Your task to perform on an android device: Go to ESPN.com Image 0: 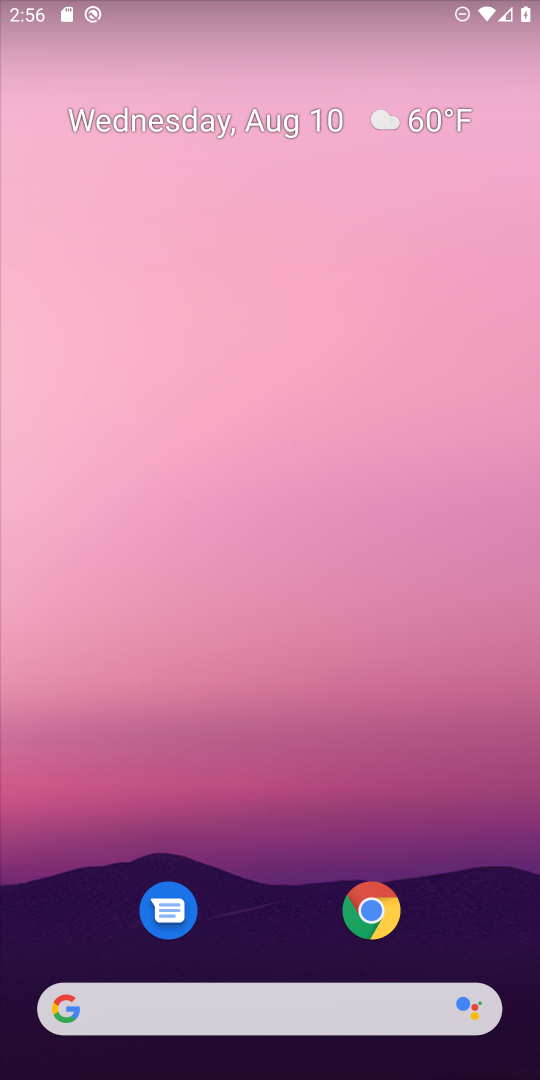
Step 0: click (380, 906)
Your task to perform on an android device: Go to ESPN.com Image 1: 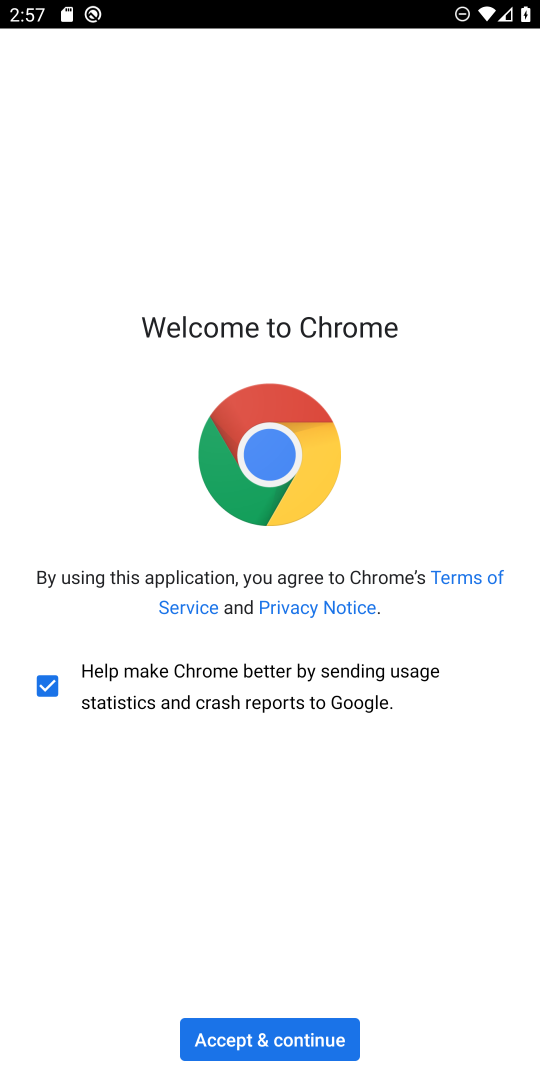
Step 1: click (251, 1038)
Your task to perform on an android device: Go to ESPN.com Image 2: 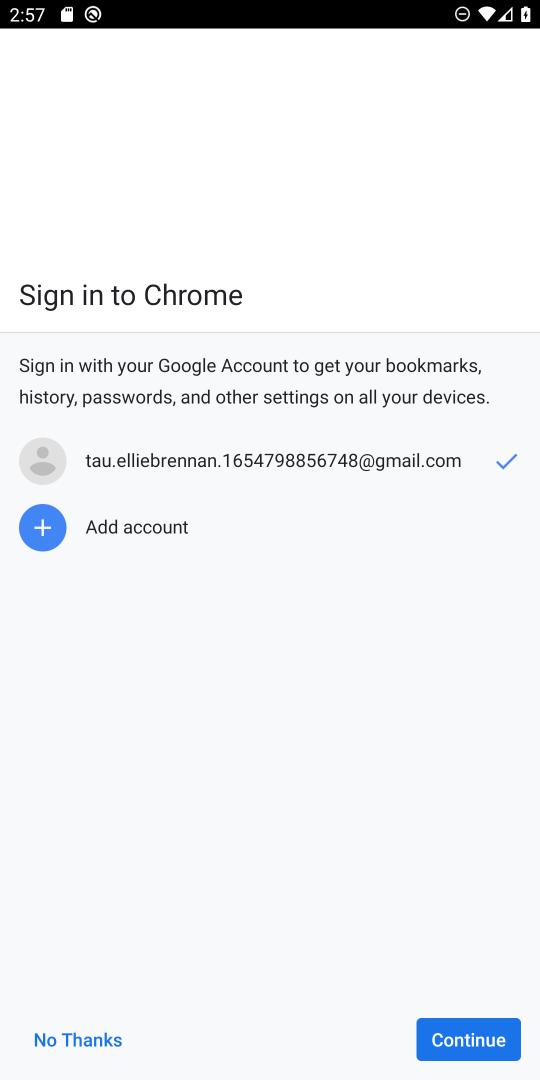
Step 2: click (450, 1019)
Your task to perform on an android device: Go to ESPN.com Image 3: 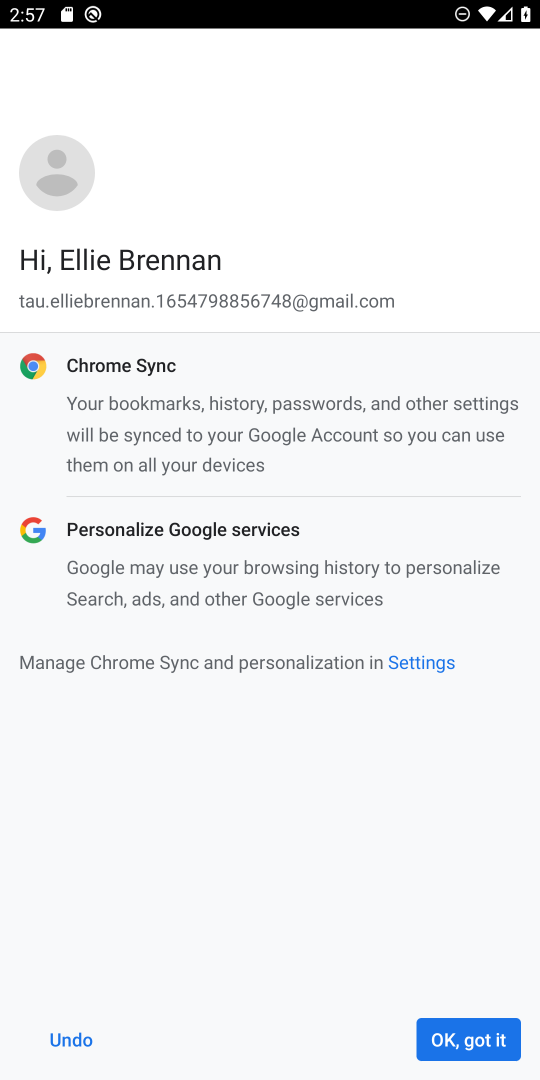
Step 3: click (450, 1019)
Your task to perform on an android device: Go to ESPN.com Image 4: 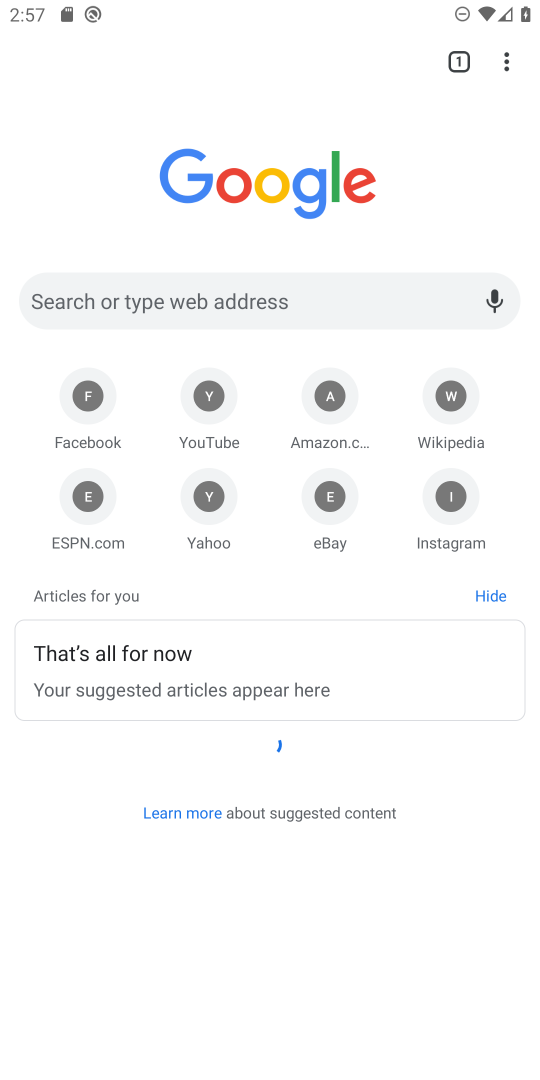
Step 4: click (85, 493)
Your task to perform on an android device: Go to ESPN.com Image 5: 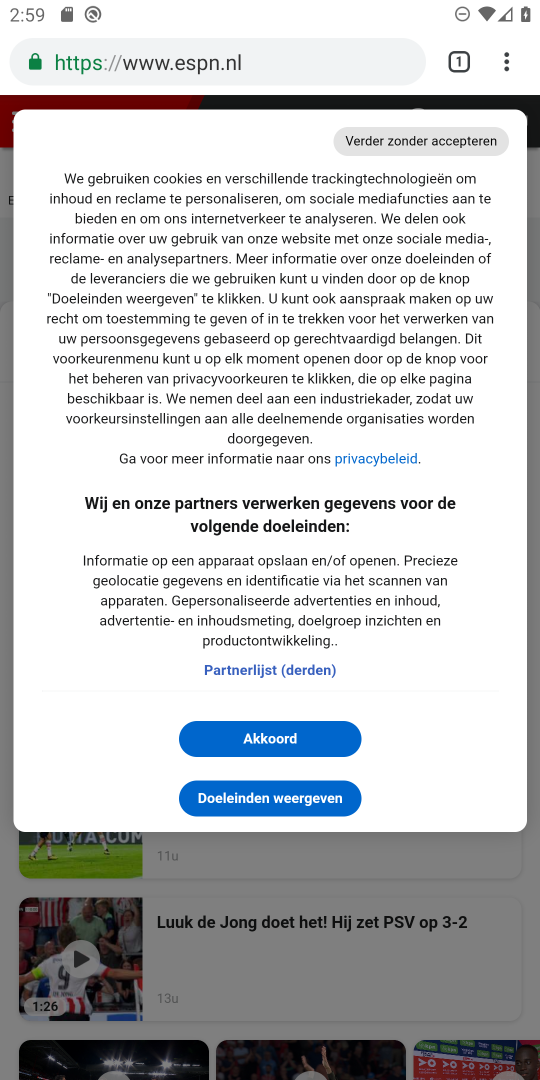
Step 5: click (213, 727)
Your task to perform on an android device: Go to ESPN.com Image 6: 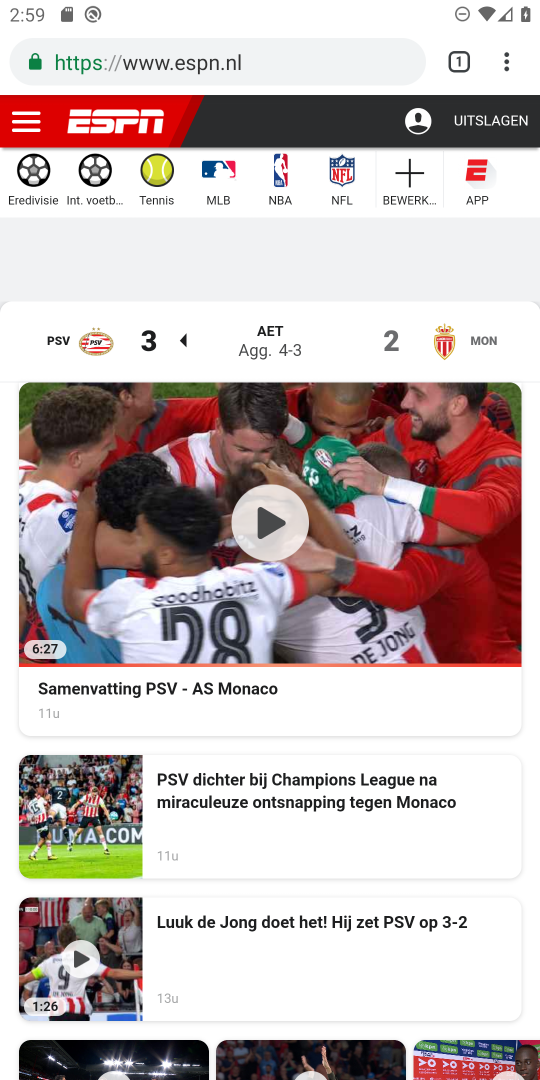
Step 6: task complete